Your task to perform on an android device: install app "Flipkart Online Shopping App" Image 0: 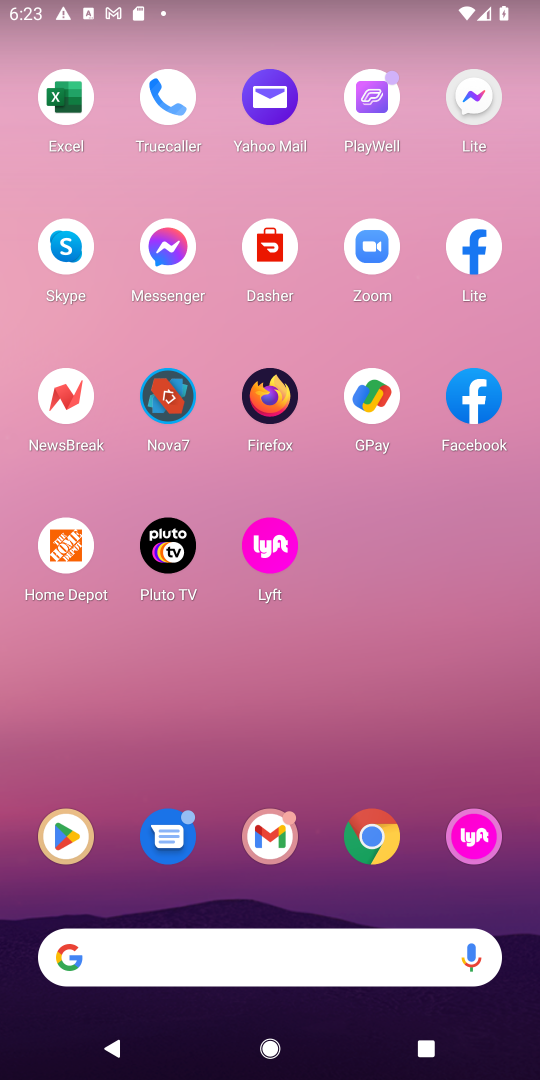
Step 0: press home button
Your task to perform on an android device: install app "Flipkart Online Shopping App" Image 1: 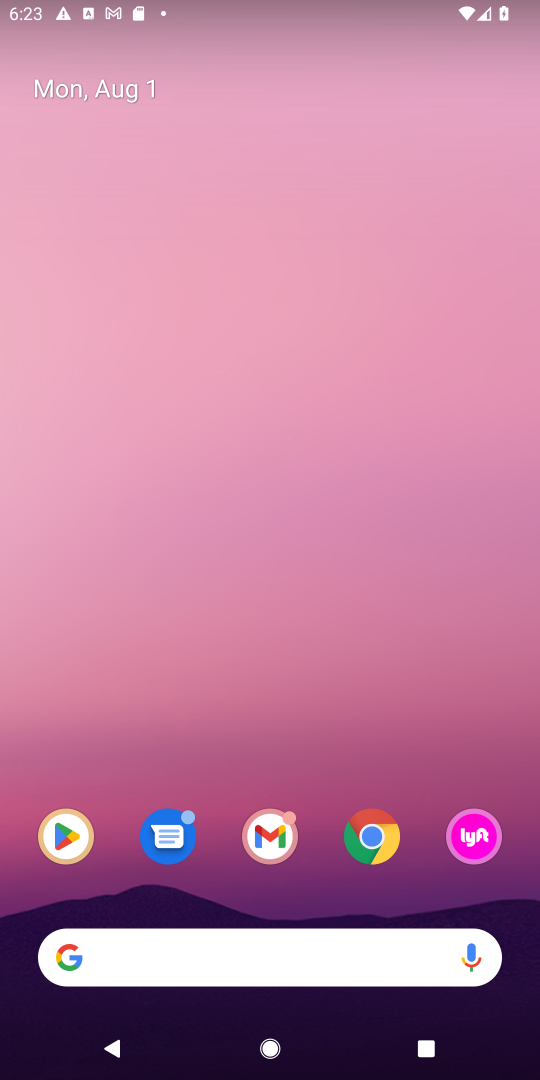
Step 1: click (78, 828)
Your task to perform on an android device: install app "Flipkart Online Shopping App" Image 2: 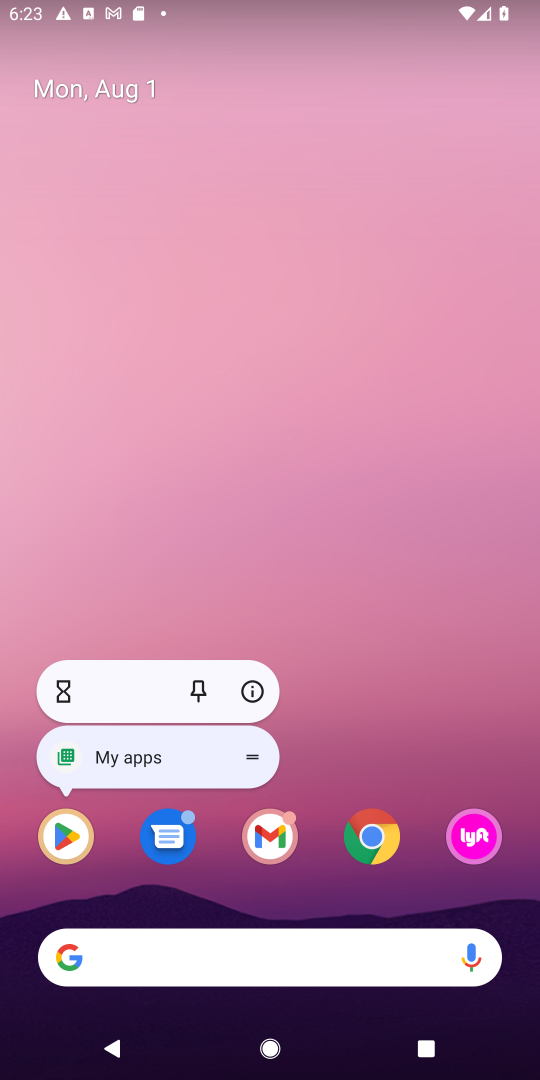
Step 2: click (78, 831)
Your task to perform on an android device: install app "Flipkart Online Shopping App" Image 3: 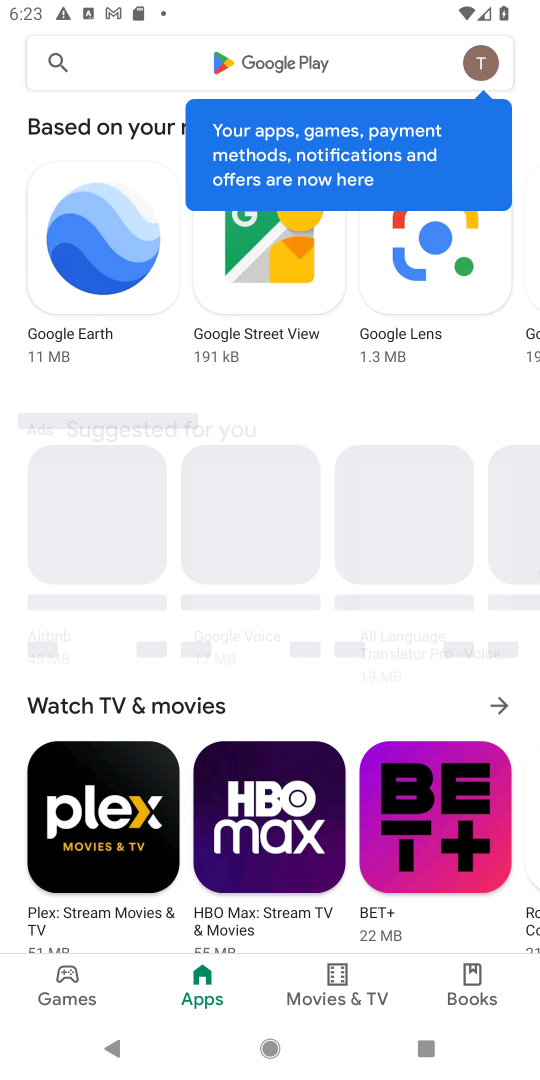
Step 3: click (361, 58)
Your task to perform on an android device: install app "Flipkart Online Shopping App" Image 4: 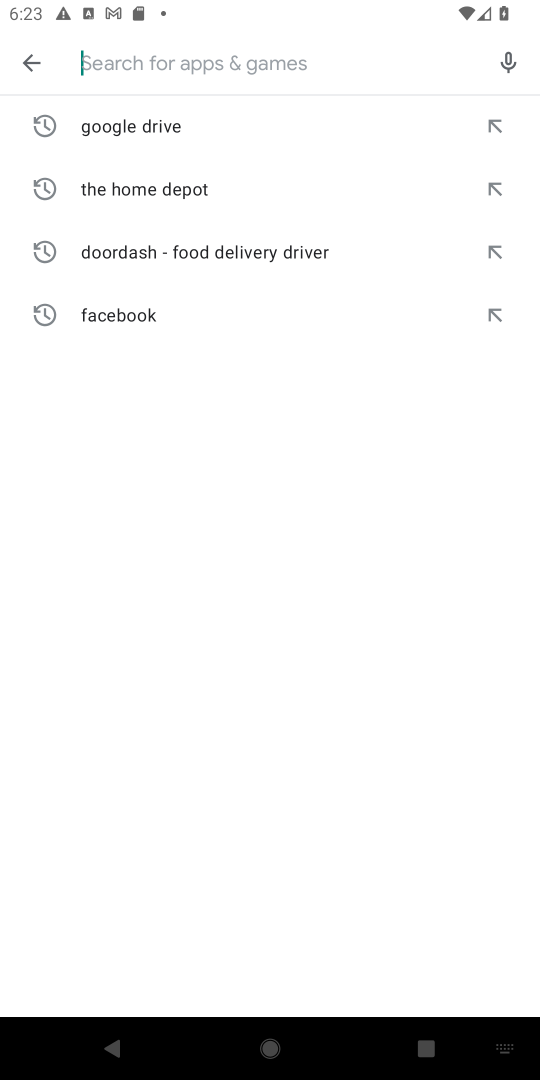
Step 4: type "Flipkart Online Shopping App"
Your task to perform on an android device: install app "Flipkart Online Shopping App" Image 5: 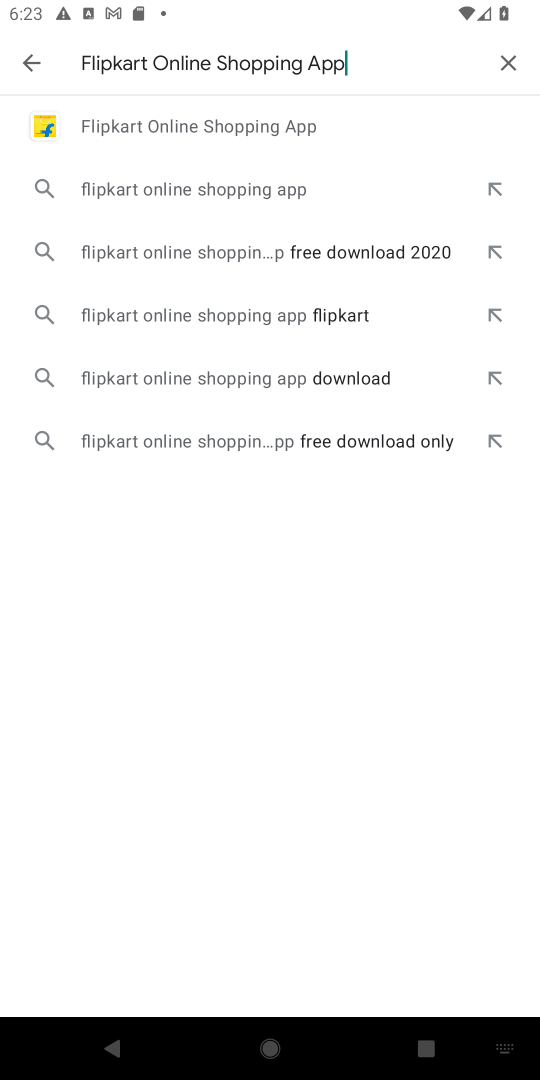
Step 5: click (244, 122)
Your task to perform on an android device: install app "Flipkart Online Shopping App" Image 6: 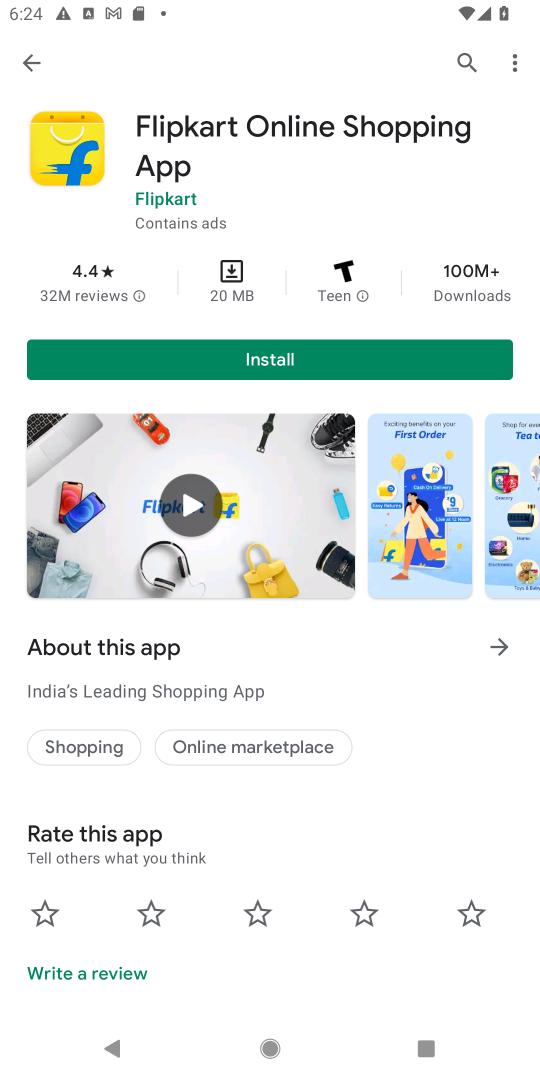
Step 6: click (280, 357)
Your task to perform on an android device: install app "Flipkart Online Shopping App" Image 7: 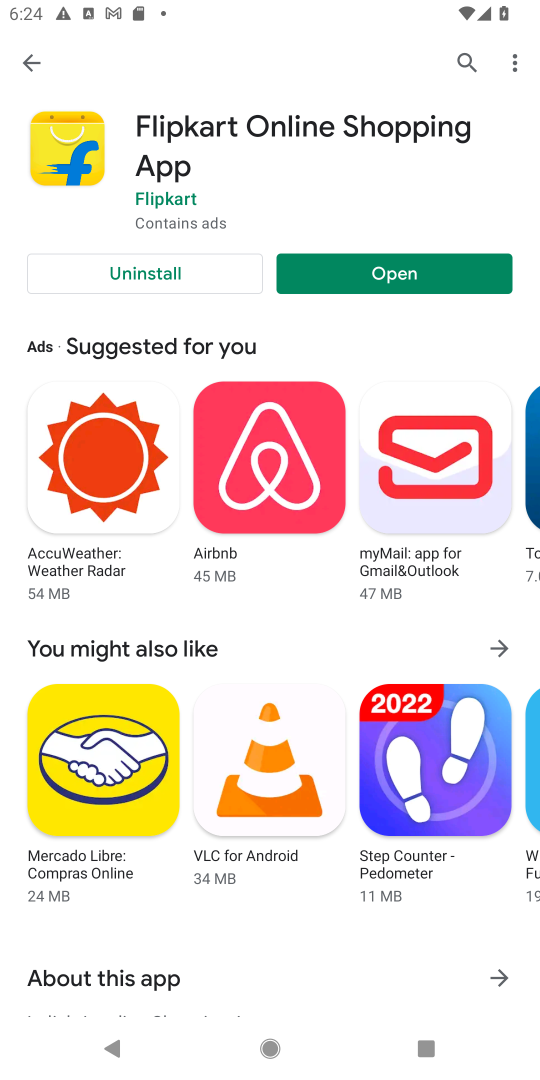
Step 7: task complete